Your task to perform on an android device: Do I have any events tomorrow? Image 0: 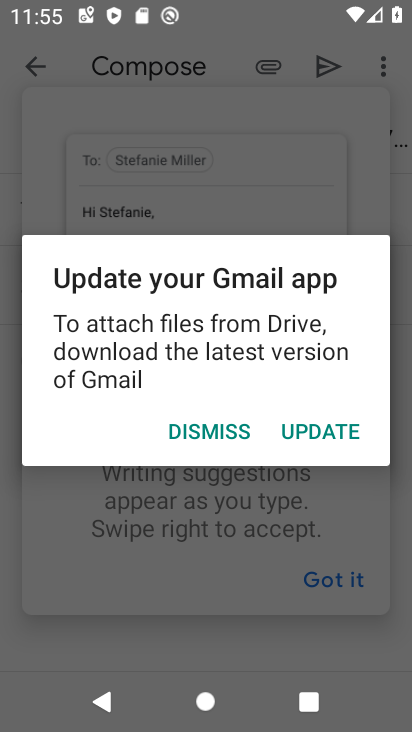
Step 0: press home button
Your task to perform on an android device: Do I have any events tomorrow? Image 1: 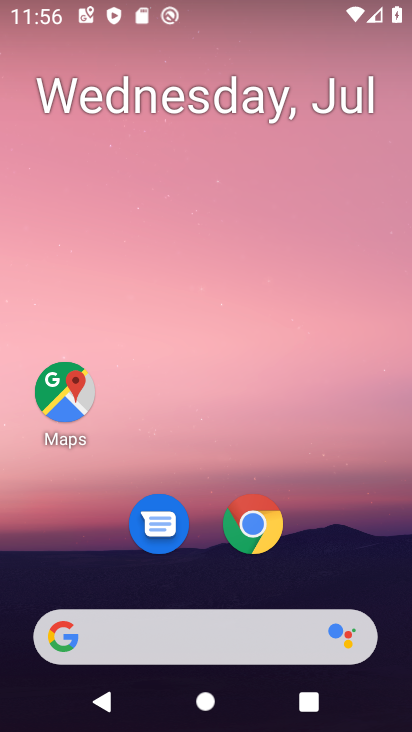
Step 1: drag from (178, 628) to (265, 211)
Your task to perform on an android device: Do I have any events tomorrow? Image 2: 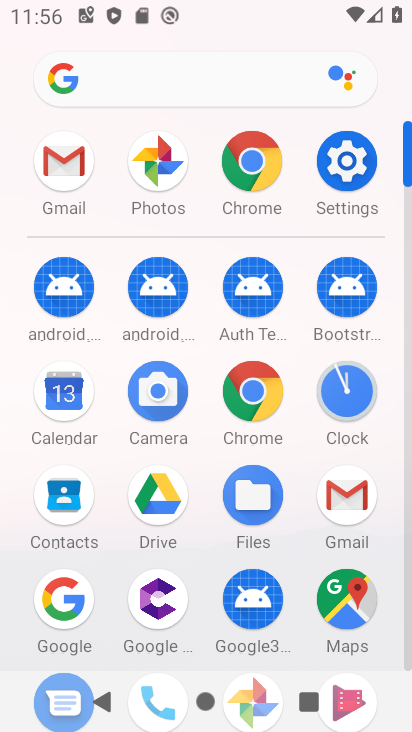
Step 2: click (355, 499)
Your task to perform on an android device: Do I have any events tomorrow? Image 3: 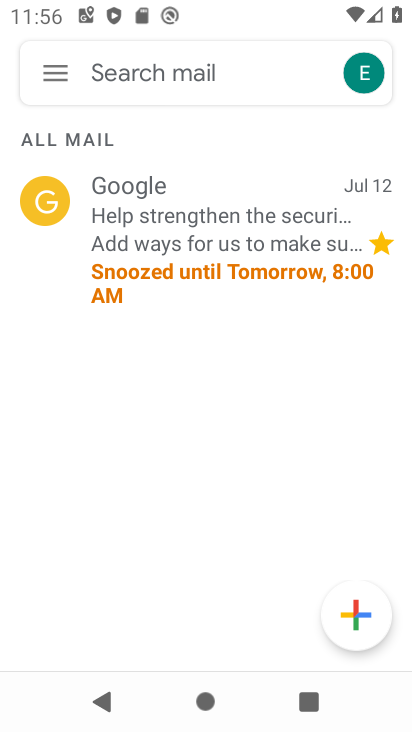
Step 3: press home button
Your task to perform on an android device: Do I have any events tomorrow? Image 4: 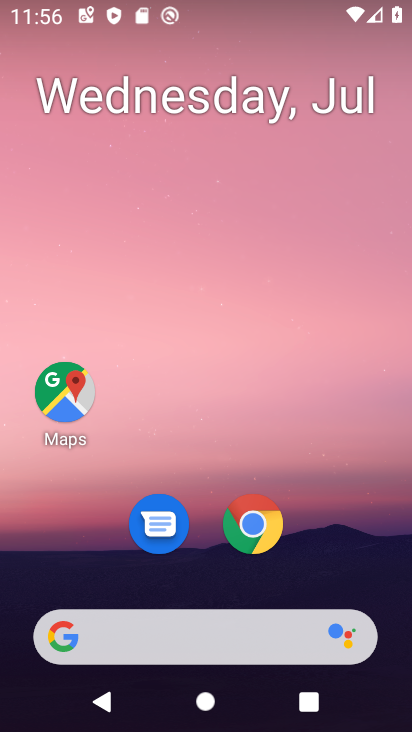
Step 4: drag from (169, 649) to (262, 116)
Your task to perform on an android device: Do I have any events tomorrow? Image 5: 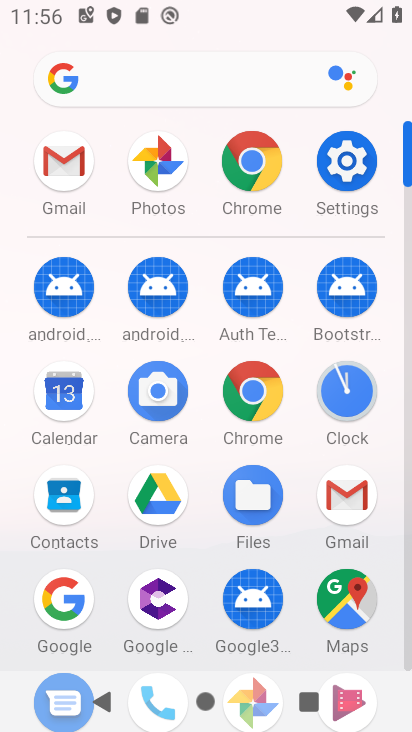
Step 5: click (69, 394)
Your task to perform on an android device: Do I have any events tomorrow? Image 6: 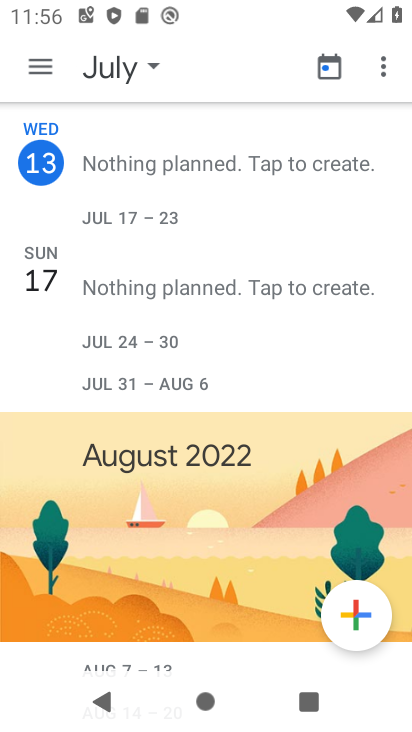
Step 6: click (107, 70)
Your task to perform on an android device: Do I have any events tomorrow? Image 7: 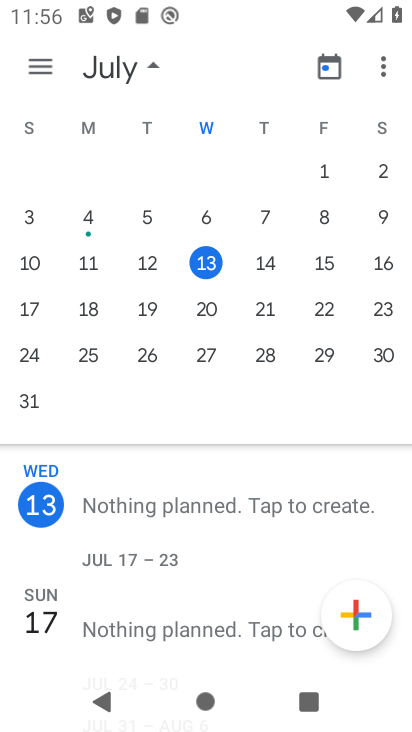
Step 7: click (117, 67)
Your task to perform on an android device: Do I have any events tomorrow? Image 8: 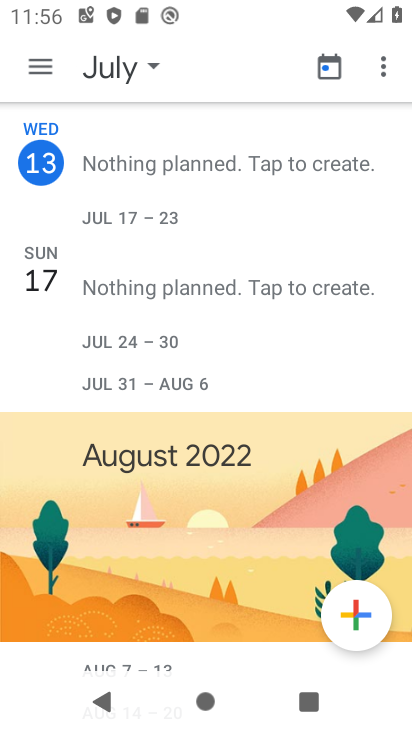
Step 8: click (266, 266)
Your task to perform on an android device: Do I have any events tomorrow? Image 9: 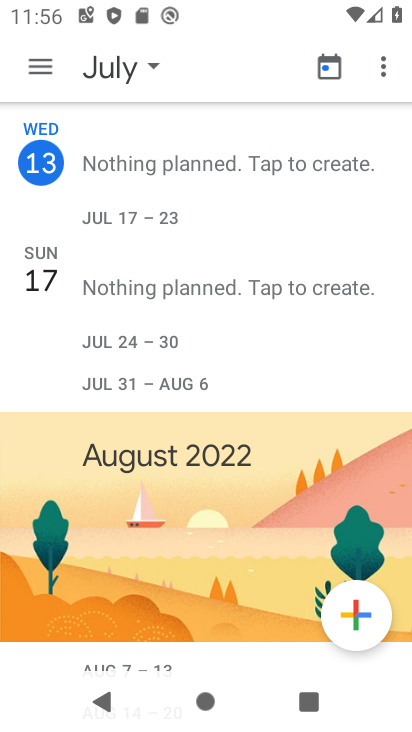
Step 9: click (112, 73)
Your task to perform on an android device: Do I have any events tomorrow? Image 10: 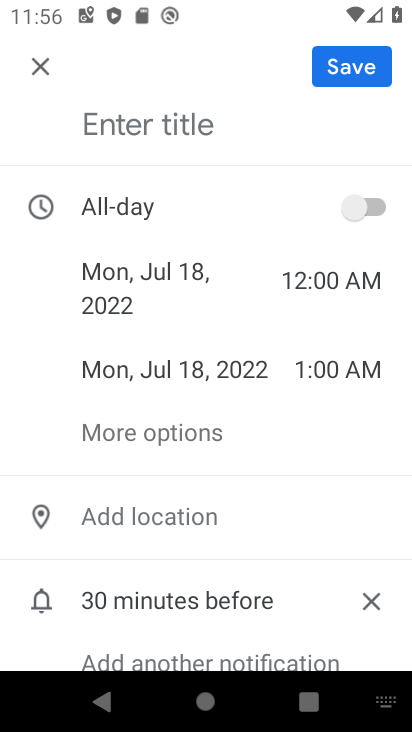
Step 10: click (43, 64)
Your task to perform on an android device: Do I have any events tomorrow? Image 11: 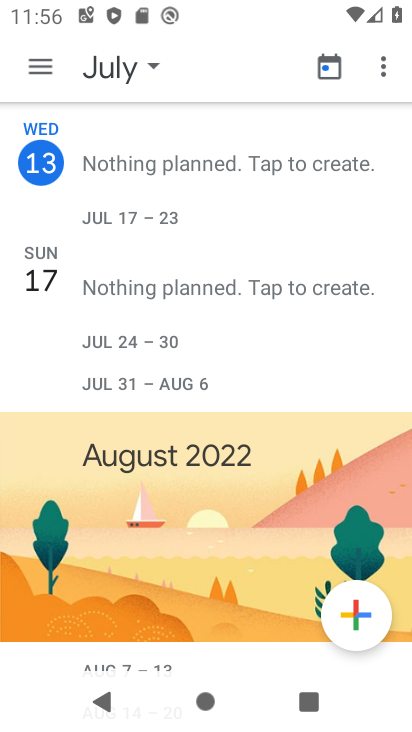
Step 11: click (111, 63)
Your task to perform on an android device: Do I have any events tomorrow? Image 12: 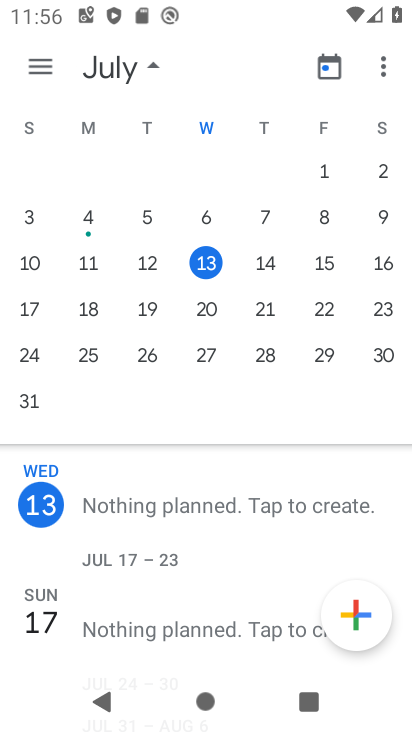
Step 12: click (268, 258)
Your task to perform on an android device: Do I have any events tomorrow? Image 13: 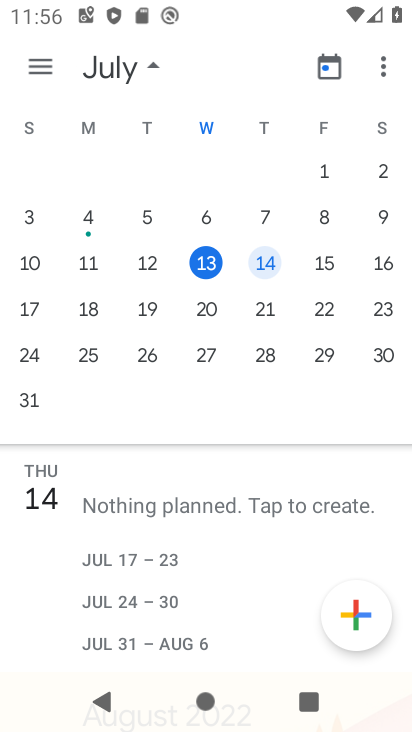
Step 13: click (41, 64)
Your task to perform on an android device: Do I have any events tomorrow? Image 14: 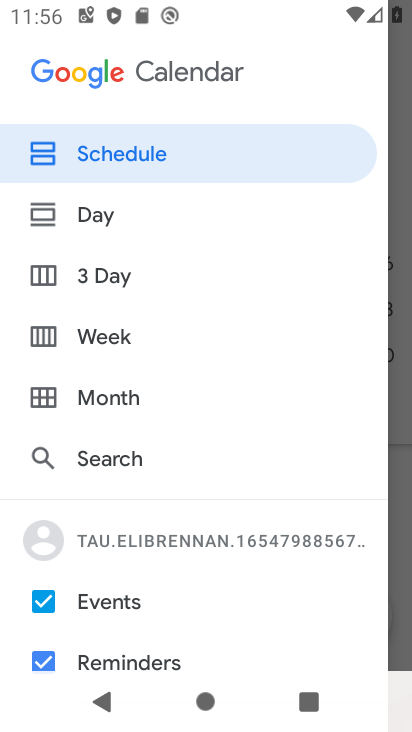
Step 14: click (99, 214)
Your task to perform on an android device: Do I have any events tomorrow? Image 15: 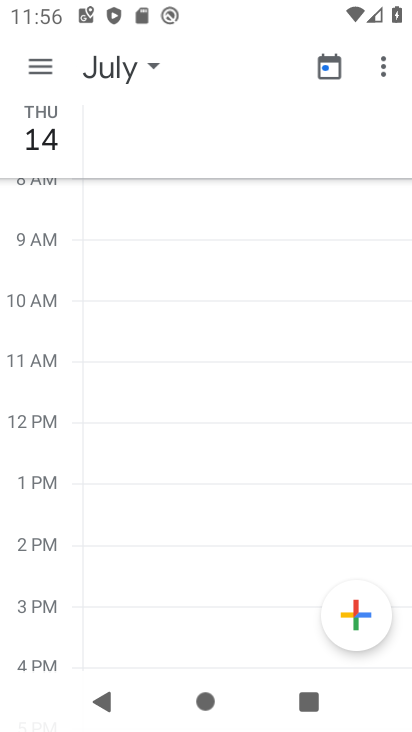
Step 15: click (48, 59)
Your task to perform on an android device: Do I have any events tomorrow? Image 16: 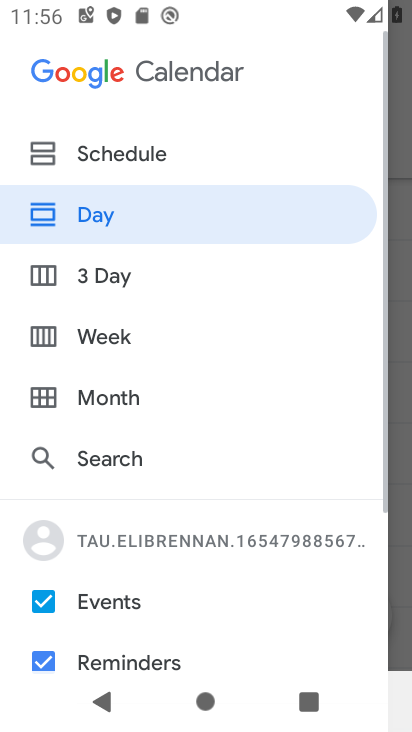
Step 16: click (99, 158)
Your task to perform on an android device: Do I have any events tomorrow? Image 17: 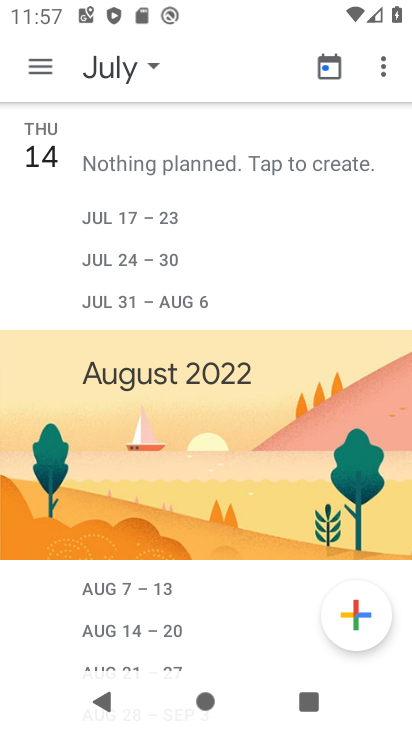
Step 17: task complete